Your task to perform on an android device: install app "Google Docs" Image 0: 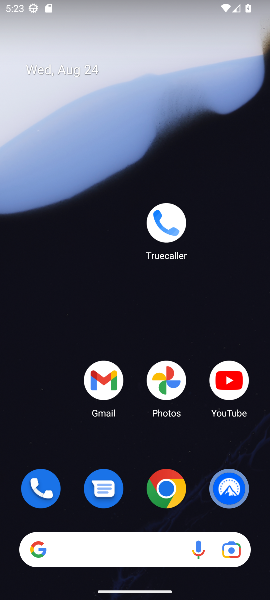
Step 0: drag from (146, 518) to (149, 97)
Your task to perform on an android device: install app "Google Docs" Image 1: 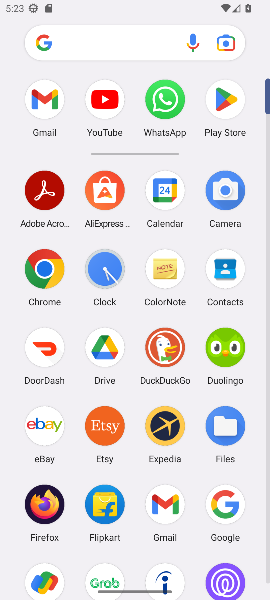
Step 1: click (217, 105)
Your task to perform on an android device: install app "Google Docs" Image 2: 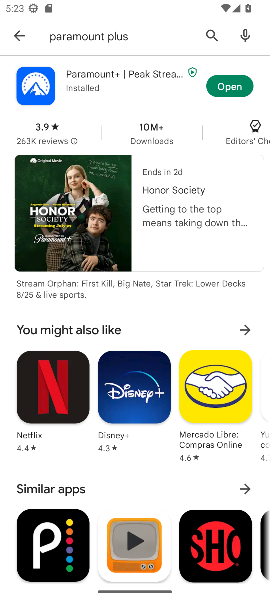
Step 2: click (213, 44)
Your task to perform on an android device: install app "Google Docs" Image 3: 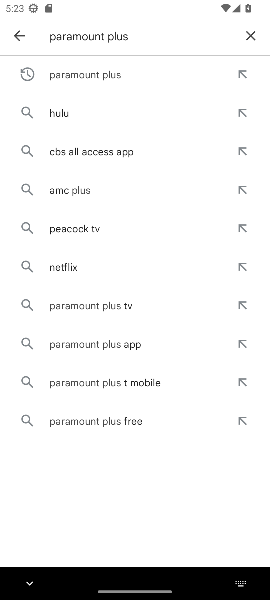
Step 3: click (241, 38)
Your task to perform on an android device: install app "Google Docs" Image 4: 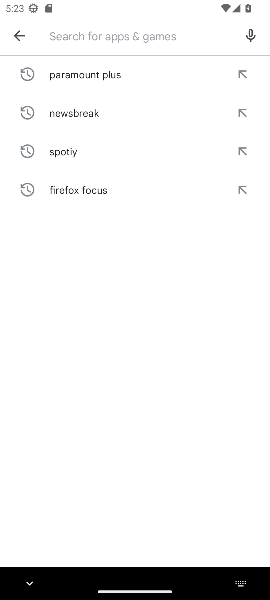
Step 4: type "google doc"
Your task to perform on an android device: install app "Google Docs" Image 5: 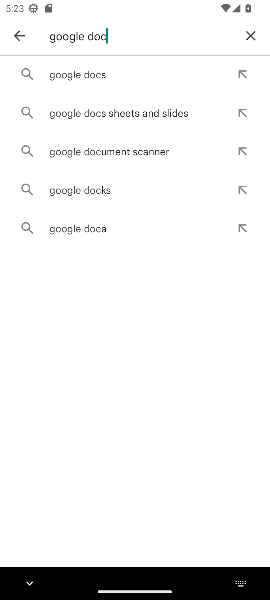
Step 5: click (121, 62)
Your task to perform on an android device: install app "Google Docs" Image 6: 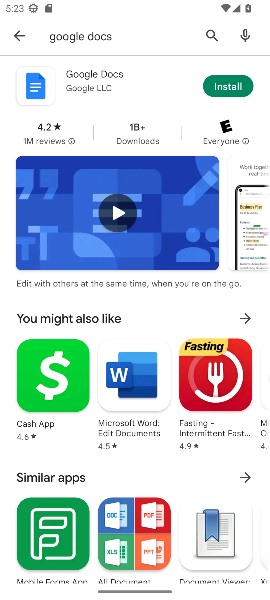
Step 6: click (222, 80)
Your task to perform on an android device: install app "Google Docs" Image 7: 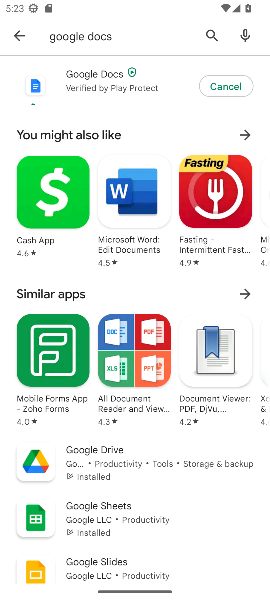
Step 7: task complete